Your task to perform on an android device: Open Chrome and go to settings Image 0: 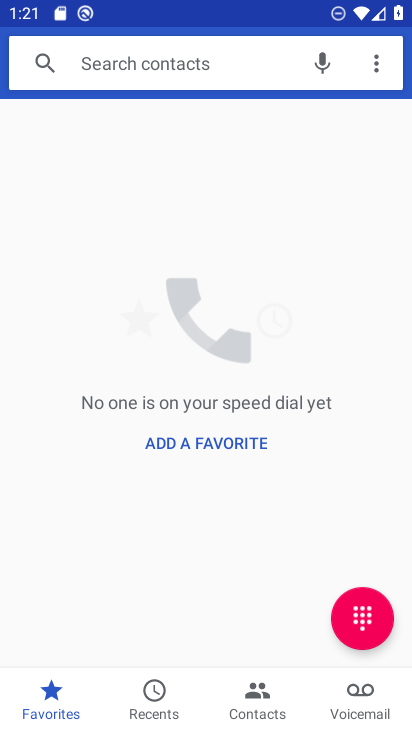
Step 0: press home button
Your task to perform on an android device: Open Chrome and go to settings Image 1: 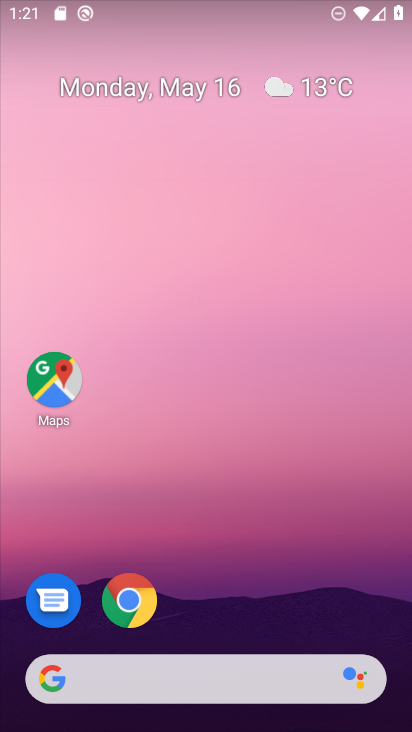
Step 1: press home button
Your task to perform on an android device: Open Chrome and go to settings Image 2: 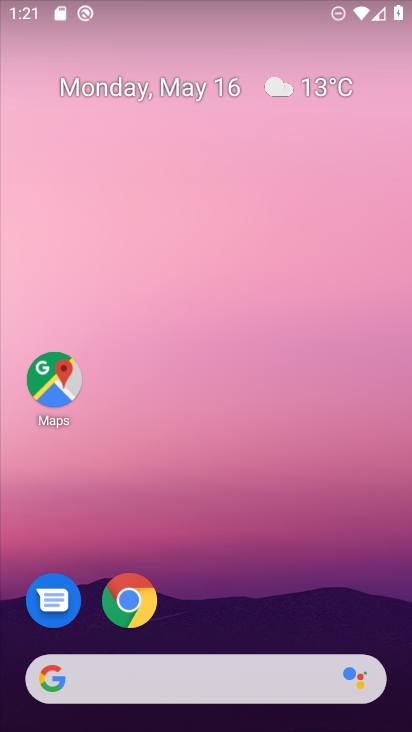
Step 2: click (125, 596)
Your task to perform on an android device: Open Chrome and go to settings Image 3: 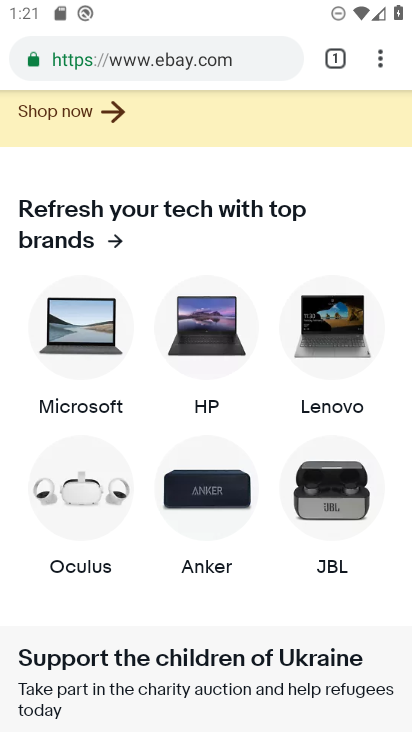
Step 3: click (384, 58)
Your task to perform on an android device: Open Chrome and go to settings Image 4: 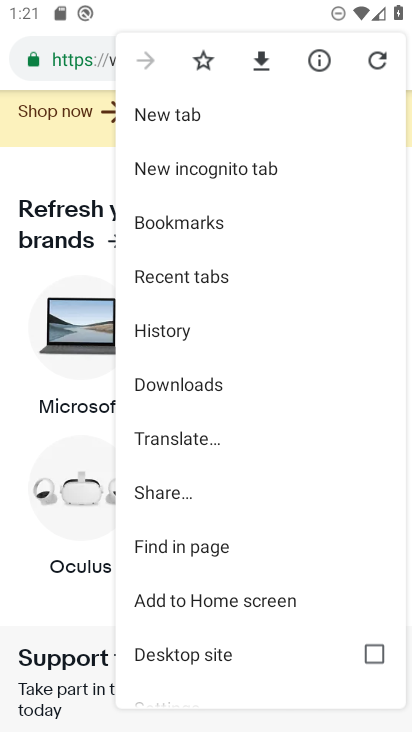
Step 4: drag from (217, 529) to (244, 180)
Your task to perform on an android device: Open Chrome and go to settings Image 5: 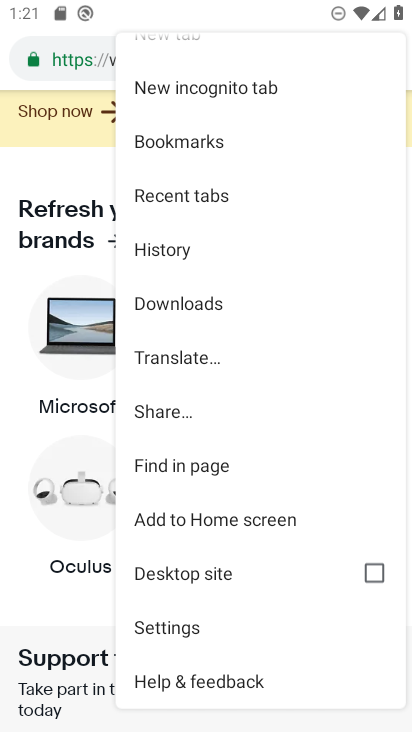
Step 5: click (210, 633)
Your task to perform on an android device: Open Chrome and go to settings Image 6: 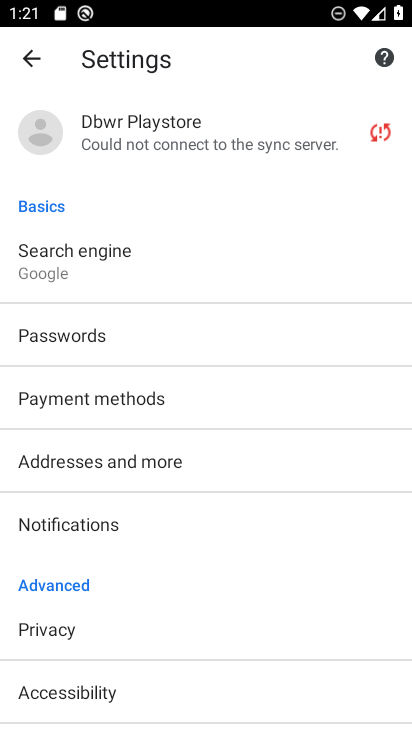
Step 6: task complete